Your task to perform on an android device: see sites visited before in the chrome app Image 0: 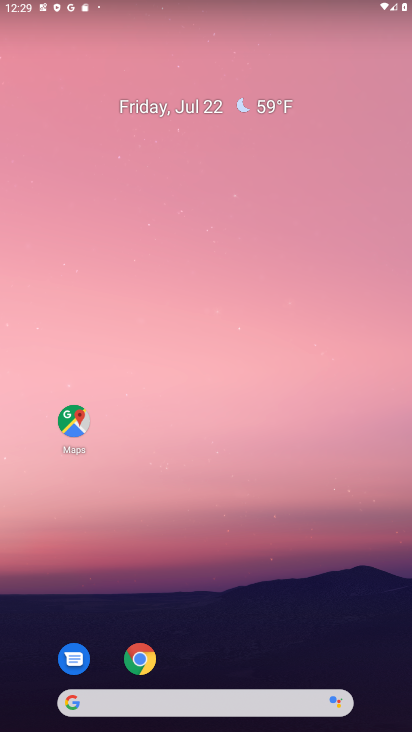
Step 0: drag from (260, 562) to (280, 11)
Your task to perform on an android device: see sites visited before in the chrome app Image 1: 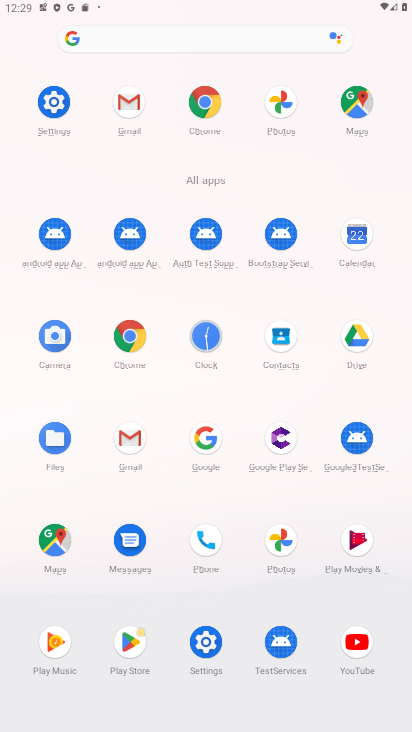
Step 1: click (202, 122)
Your task to perform on an android device: see sites visited before in the chrome app Image 2: 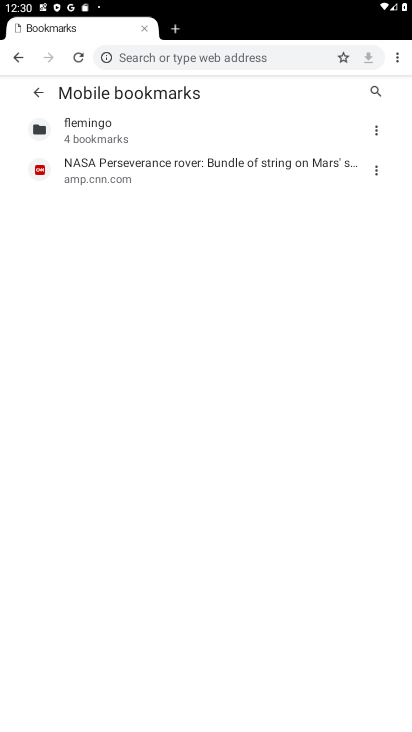
Step 2: task complete